Your task to perform on an android device: open chrome and create a bookmark for the current page Image 0: 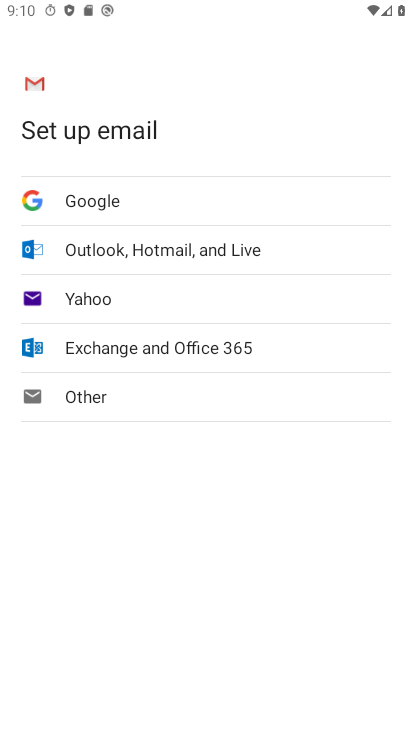
Step 0: press back button
Your task to perform on an android device: open chrome and create a bookmark for the current page Image 1: 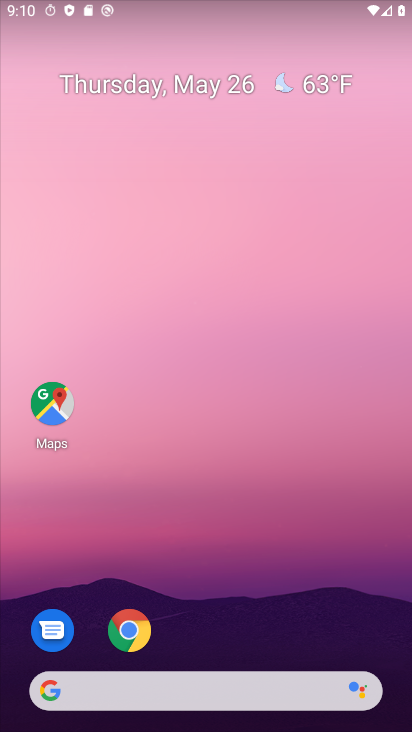
Step 1: drag from (260, 717) to (217, 9)
Your task to perform on an android device: open chrome and create a bookmark for the current page Image 2: 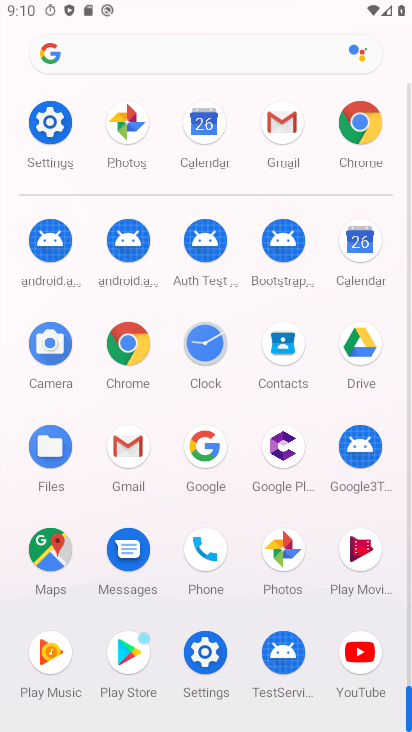
Step 2: click (364, 119)
Your task to perform on an android device: open chrome and create a bookmark for the current page Image 3: 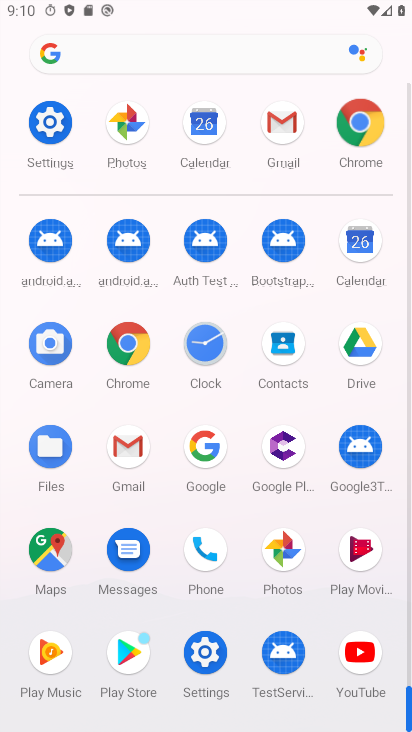
Step 3: click (364, 118)
Your task to perform on an android device: open chrome and create a bookmark for the current page Image 4: 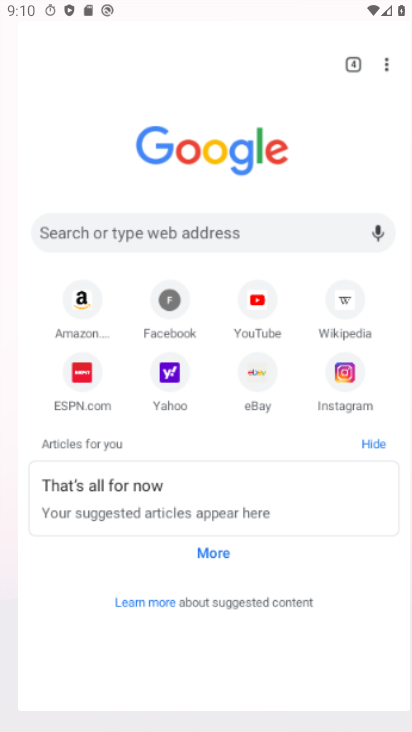
Step 4: click (363, 117)
Your task to perform on an android device: open chrome and create a bookmark for the current page Image 5: 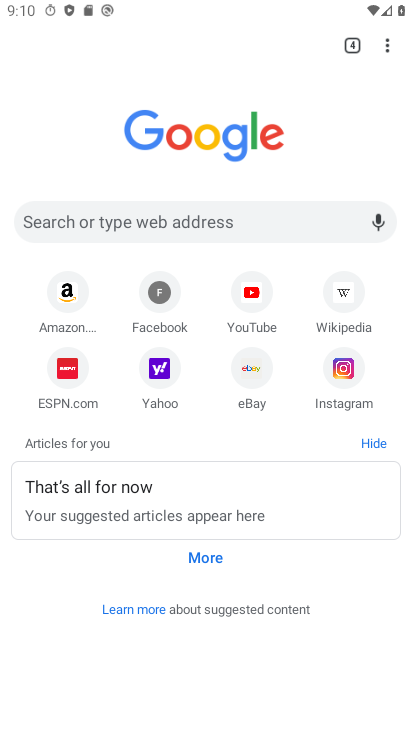
Step 5: click (46, 221)
Your task to perform on an android device: open chrome and create a bookmark for the current page Image 6: 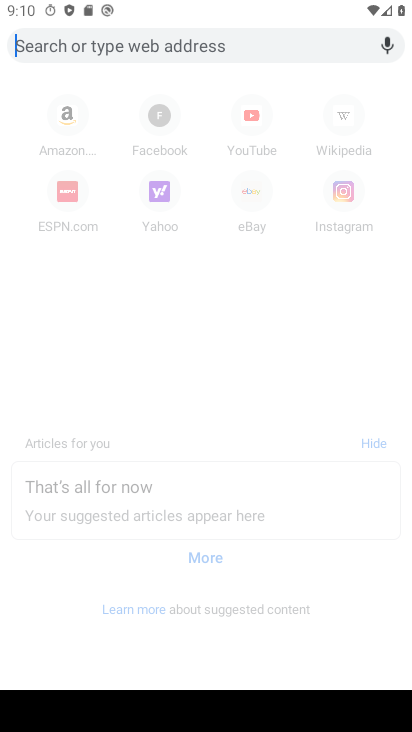
Step 6: type "www.man.com"
Your task to perform on an android device: open chrome and create a bookmark for the current page Image 7: 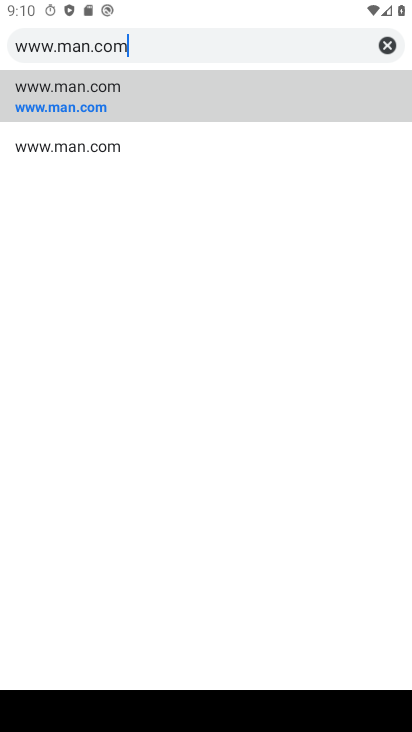
Step 7: click (60, 103)
Your task to perform on an android device: open chrome and create a bookmark for the current page Image 8: 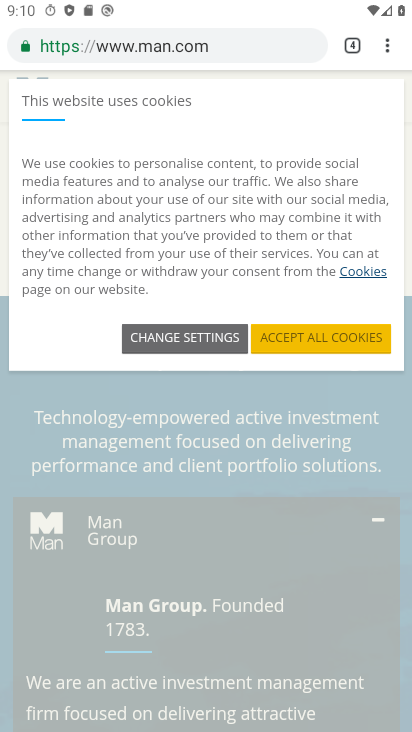
Step 8: task complete